Your task to perform on an android device: What's the weather? Image 0: 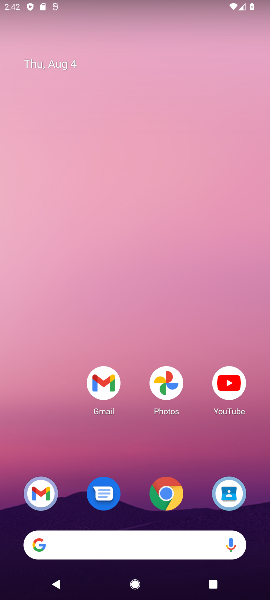
Step 0: drag from (159, 540) to (182, 203)
Your task to perform on an android device: What's the weather? Image 1: 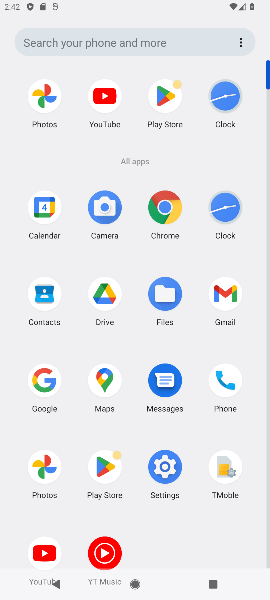
Step 1: click (47, 383)
Your task to perform on an android device: What's the weather? Image 2: 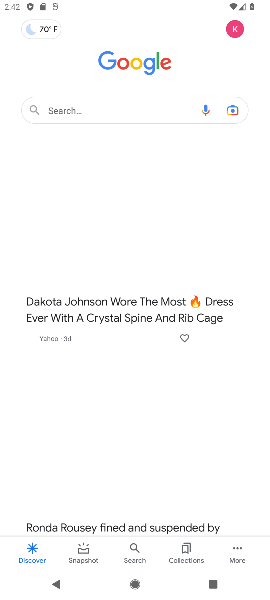
Step 2: click (98, 110)
Your task to perform on an android device: What's the weather? Image 3: 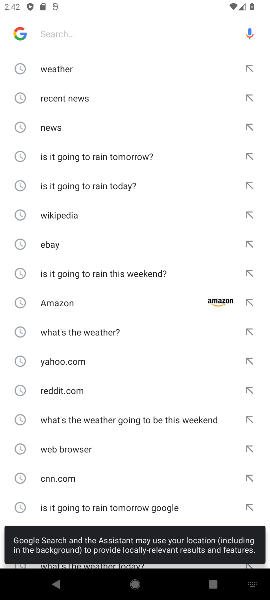
Step 3: click (53, 62)
Your task to perform on an android device: What's the weather? Image 4: 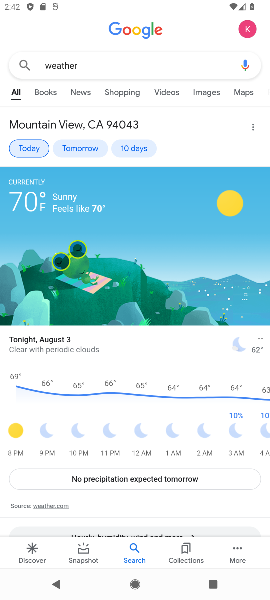
Step 4: task complete